Your task to perform on an android device: turn off notifications in google photos Image 0: 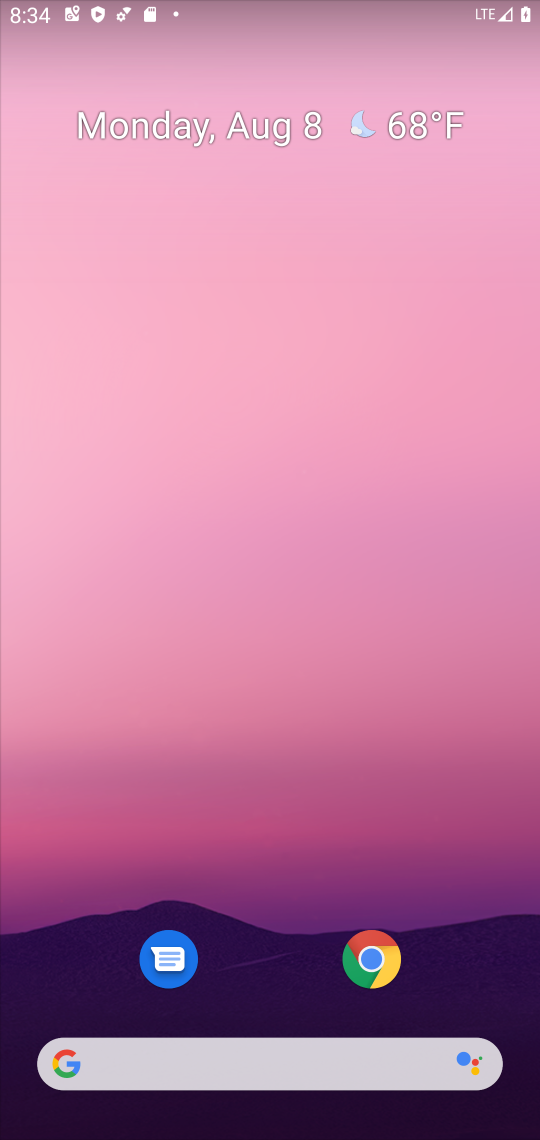
Step 0: drag from (491, 857) to (397, 54)
Your task to perform on an android device: turn off notifications in google photos Image 1: 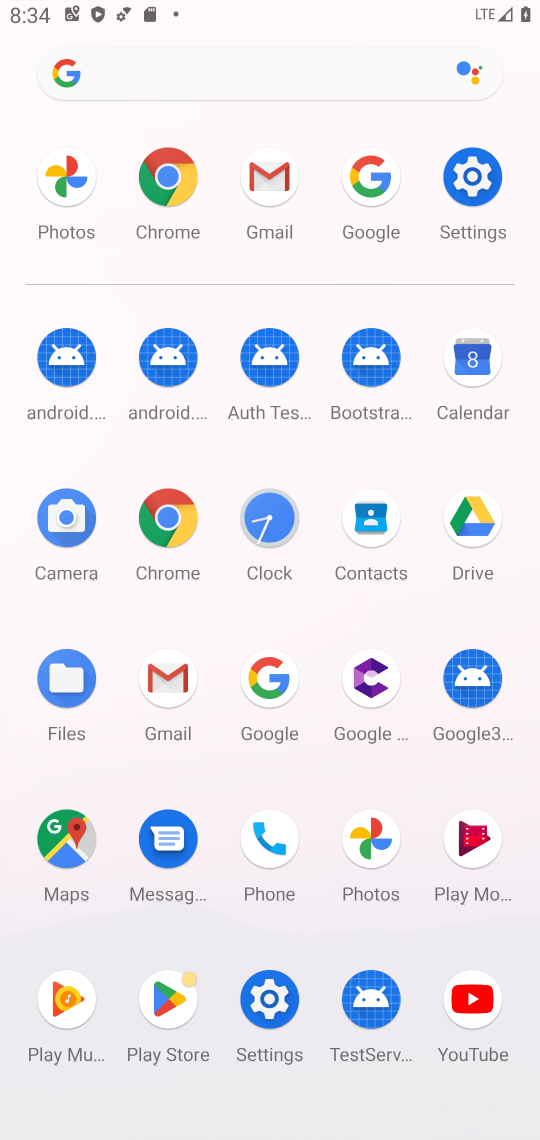
Step 1: click (382, 844)
Your task to perform on an android device: turn off notifications in google photos Image 2: 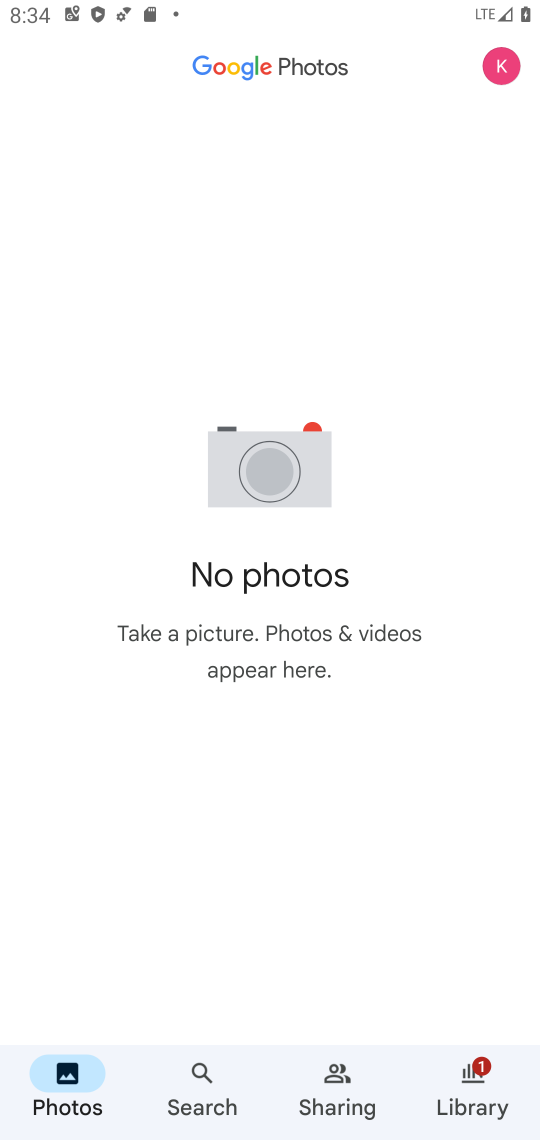
Step 2: click (499, 80)
Your task to perform on an android device: turn off notifications in google photos Image 3: 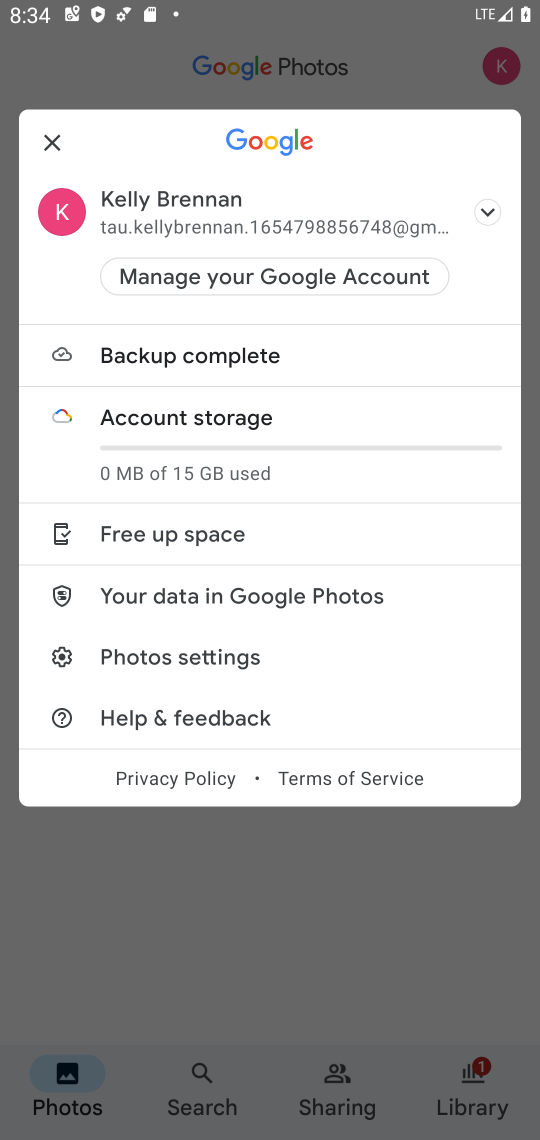
Step 3: click (139, 660)
Your task to perform on an android device: turn off notifications in google photos Image 4: 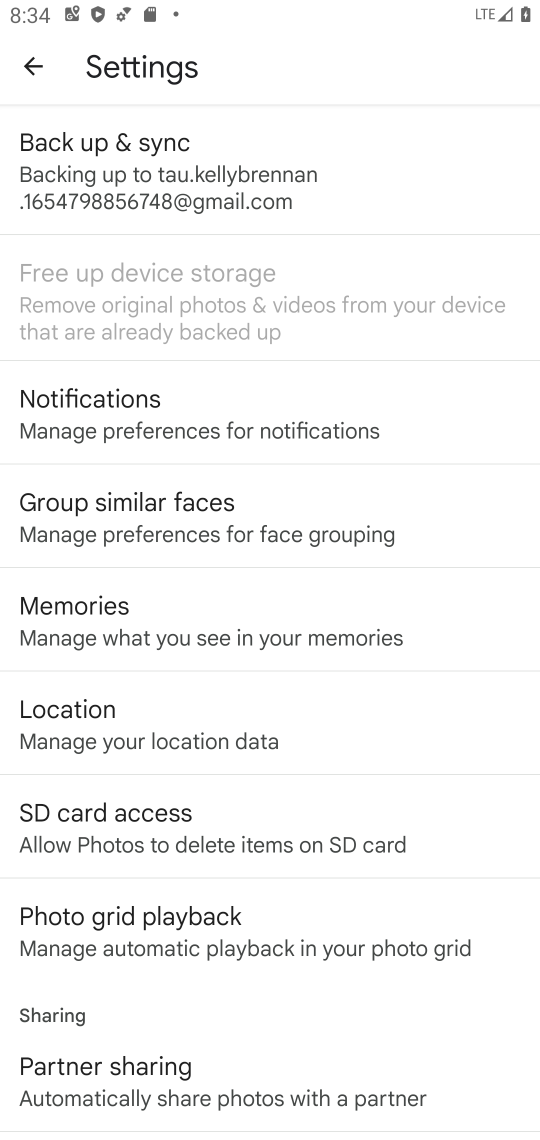
Step 4: click (157, 410)
Your task to perform on an android device: turn off notifications in google photos Image 5: 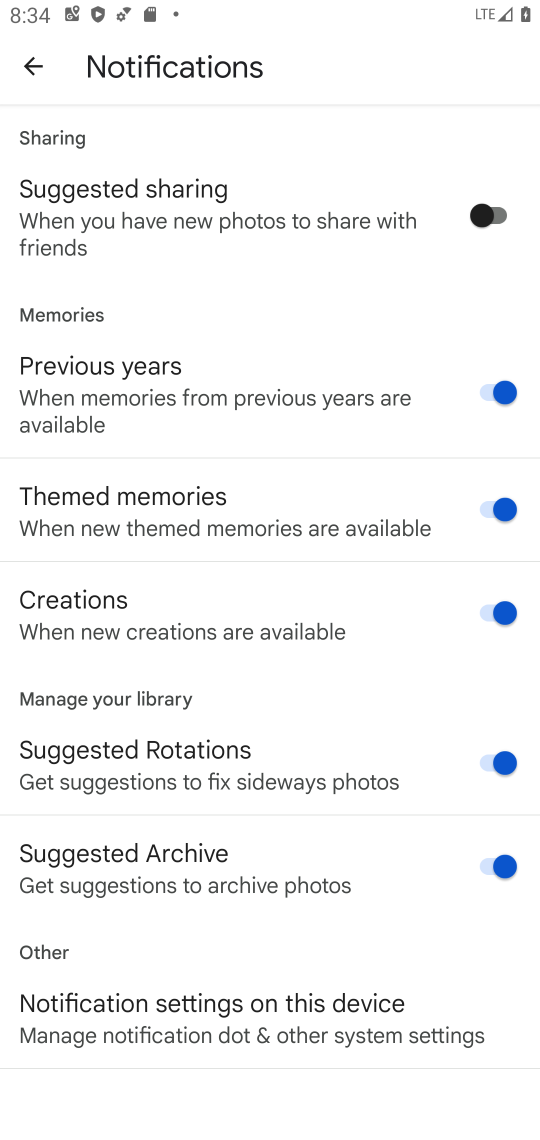
Step 5: task complete